Your task to perform on an android device: install app "ZOOM Cloud Meetings" Image 0: 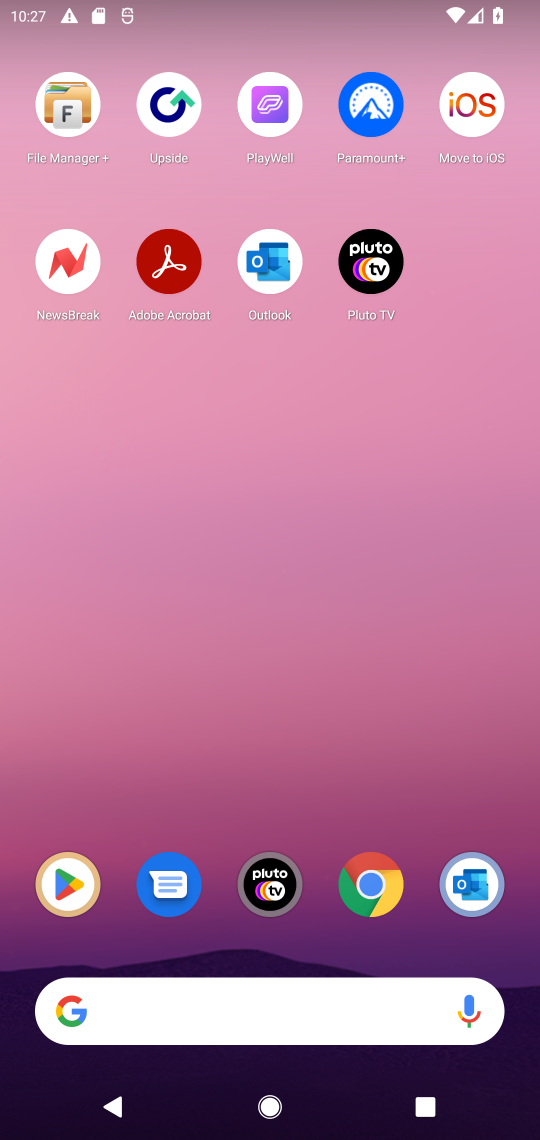
Step 0: click (75, 865)
Your task to perform on an android device: install app "ZOOM Cloud Meetings" Image 1: 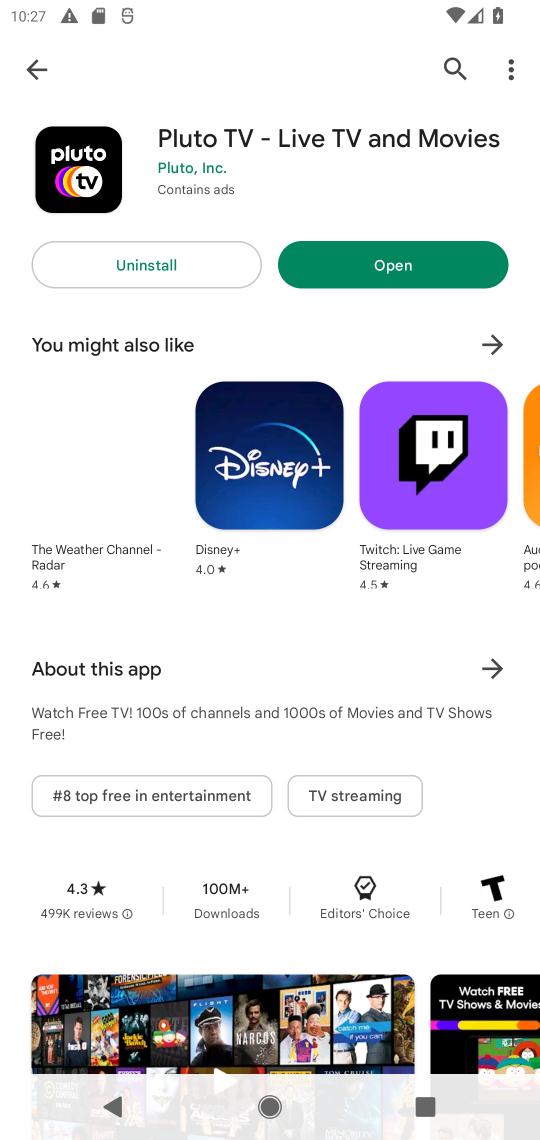
Step 1: click (453, 60)
Your task to perform on an android device: install app "ZOOM Cloud Meetings" Image 2: 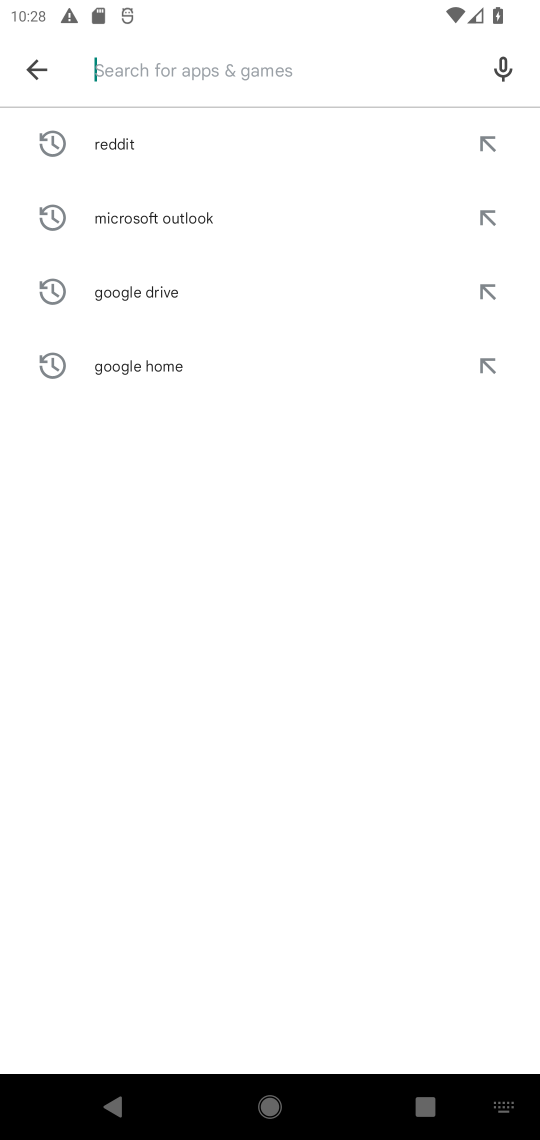
Step 2: type "Zoom cloud meetings"
Your task to perform on an android device: install app "ZOOM Cloud Meetings" Image 3: 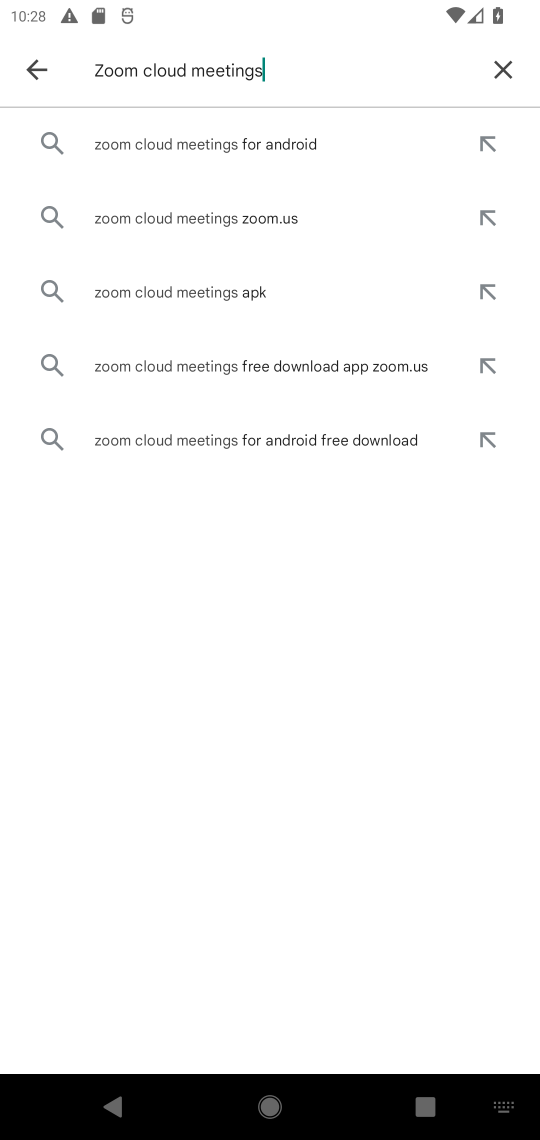
Step 3: click (322, 132)
Your task to perform on an android device: install app "ZOOM Cloud Meetings" Image 4: 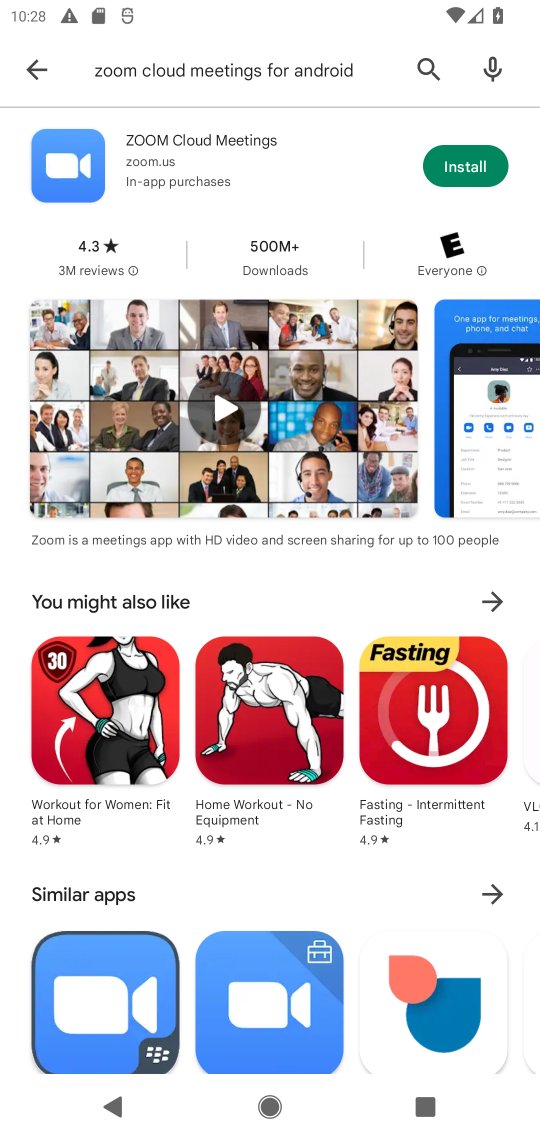
Step 4: click (249, 132)
Your task to perform on an android device: install app "ZOOM Cloud Meetings" Image 5: 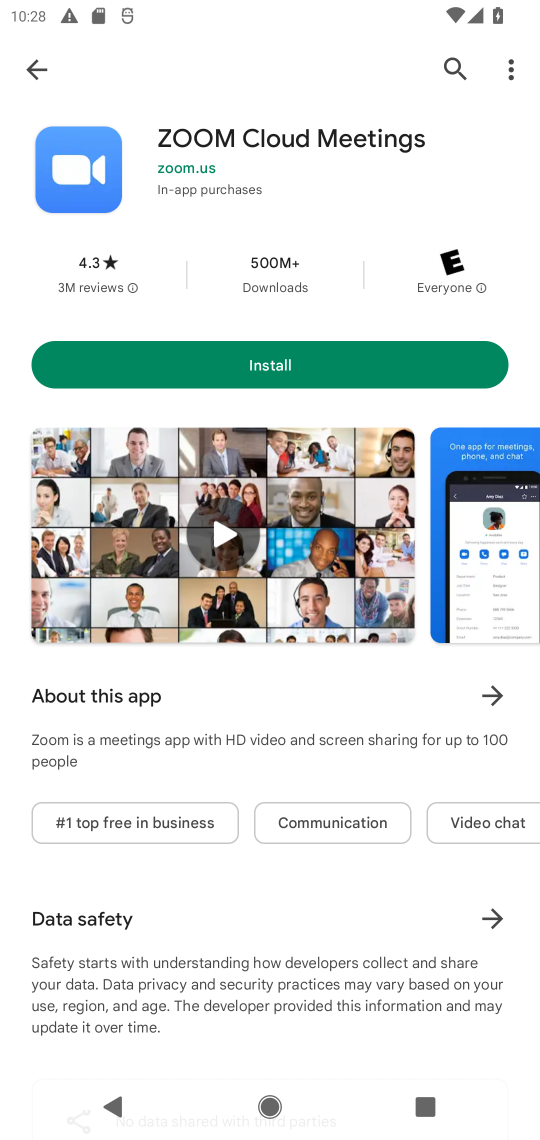
Step 5: click (185, 363)
Your task to perform on an android device: install app "ZOOM Cloud Meetings" Image 6: 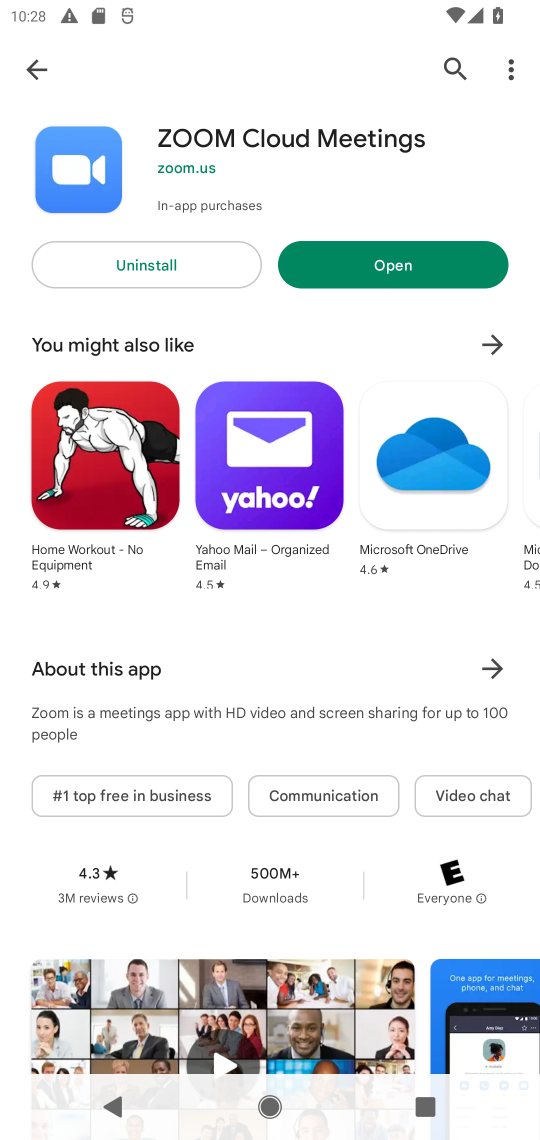
Step 6: task complete